Your task to perform on an android device: Open a new Chrome incognito tab Image 0: 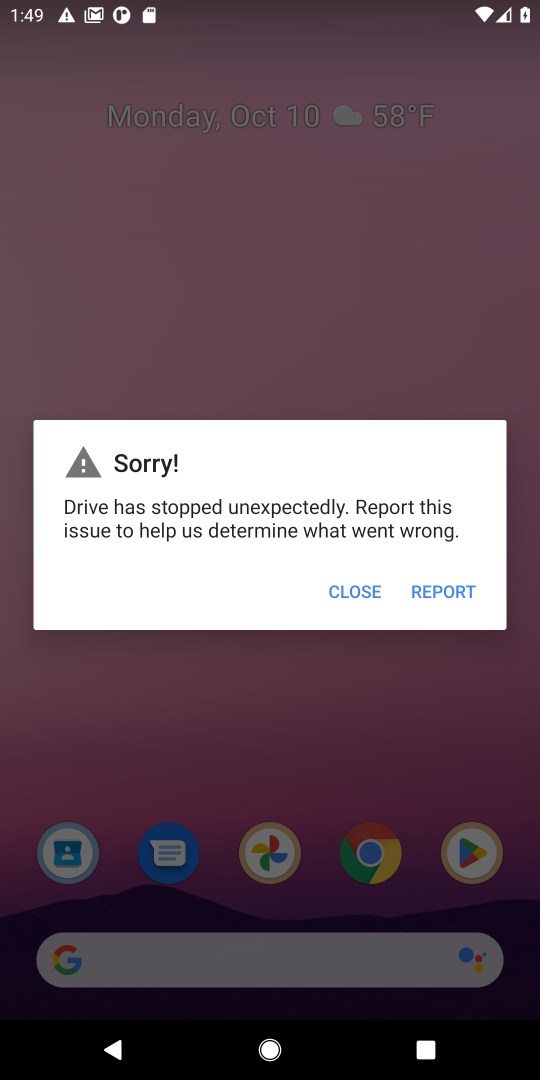
Step 0: click (347, 594)
Your task to perform on an android device: Open a new Chrome incognito tab Image 1: 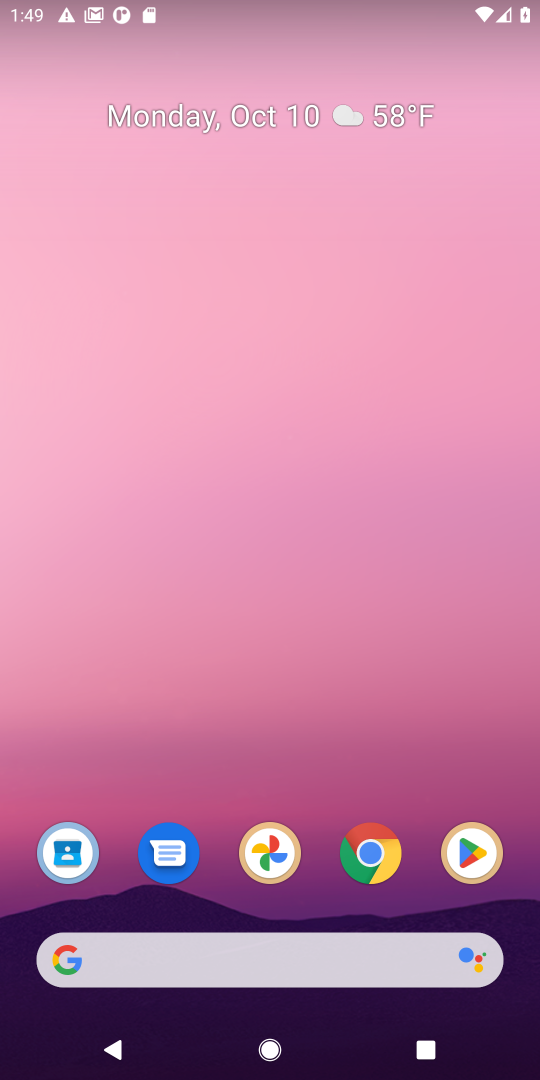
Step 1: click (373, 853)
Your task to perform on an android device: Open a new Chrome incognito tab Image 2: 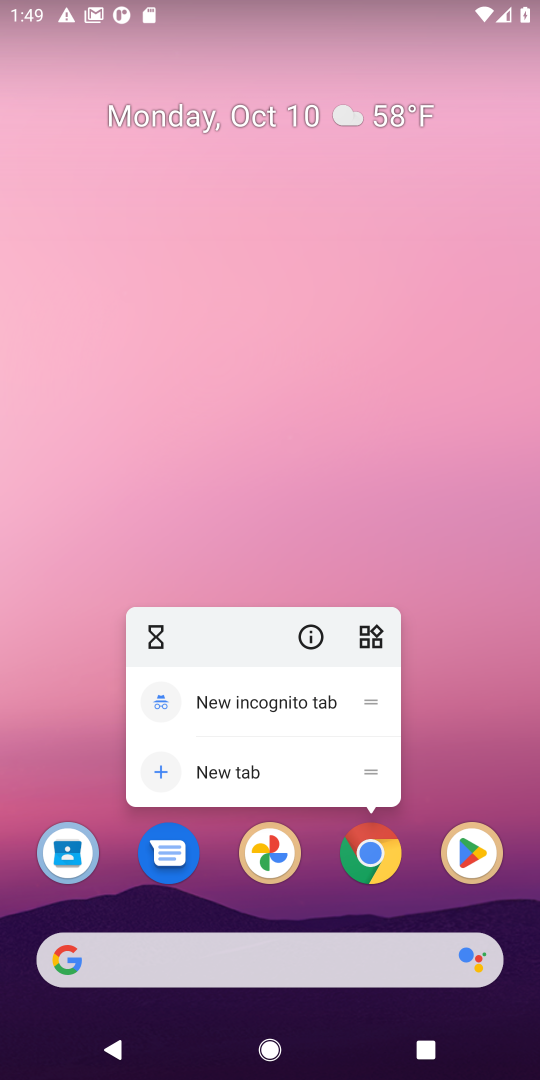
Step 2: click (385, 858)
Your task to perform on an android device: Open a new Chrome incognito tab Image 3: 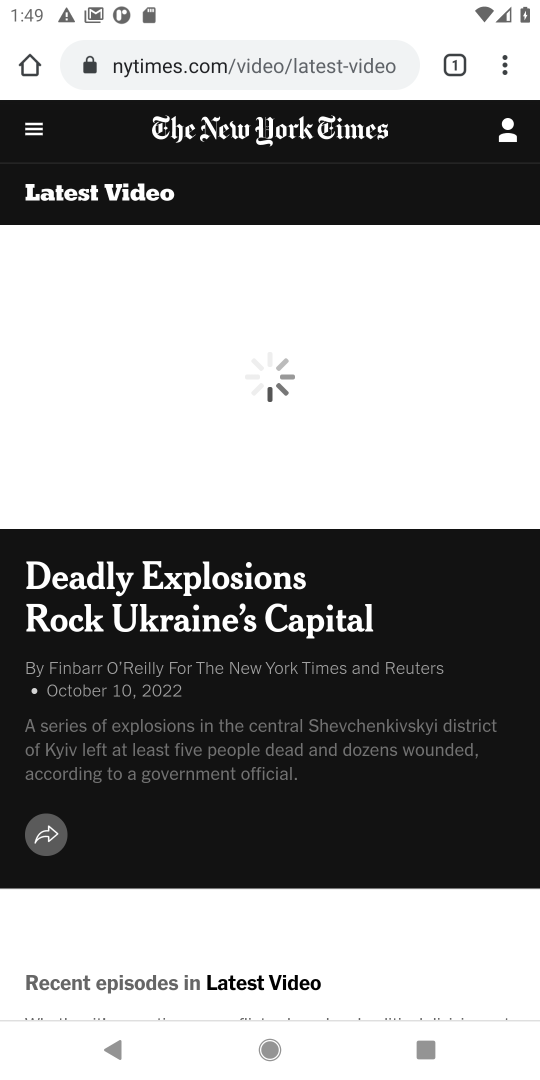
Step 3: click (503, 68)
Your task to perform on an android device: Open a new Chrome incognito tab Image 4: 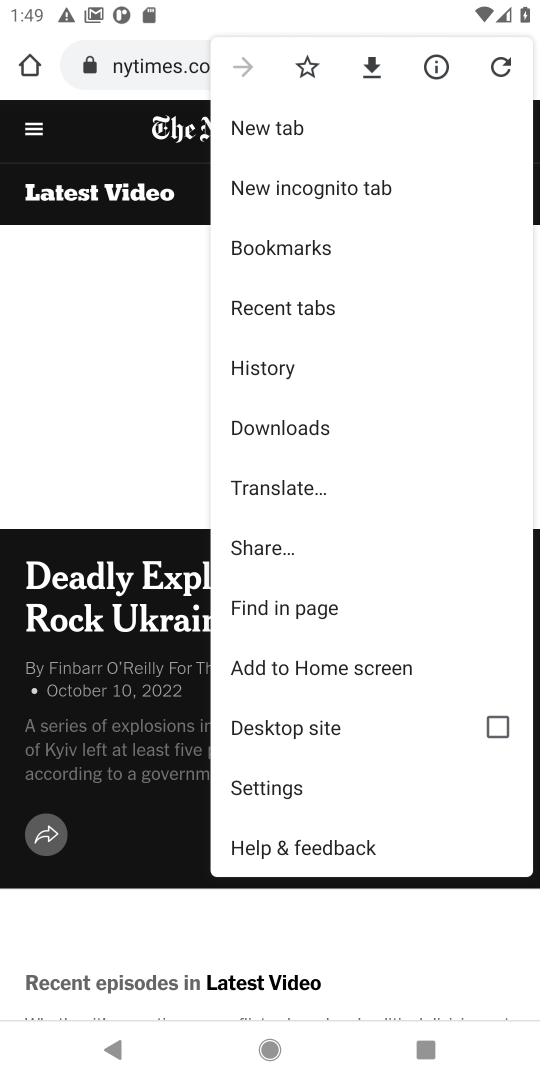
Step 4: click (275, 187)
Your task to perform on an android device: Open a new Chrome incognito tab Image 5: 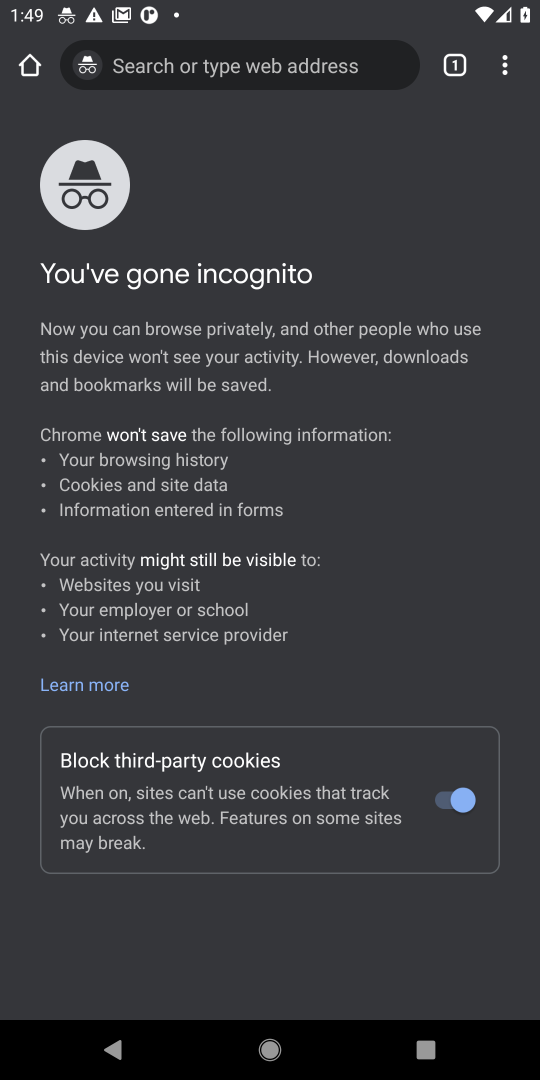
Step 5: task complete